Your task to perform on an android device: Go to notification settings Image 0: 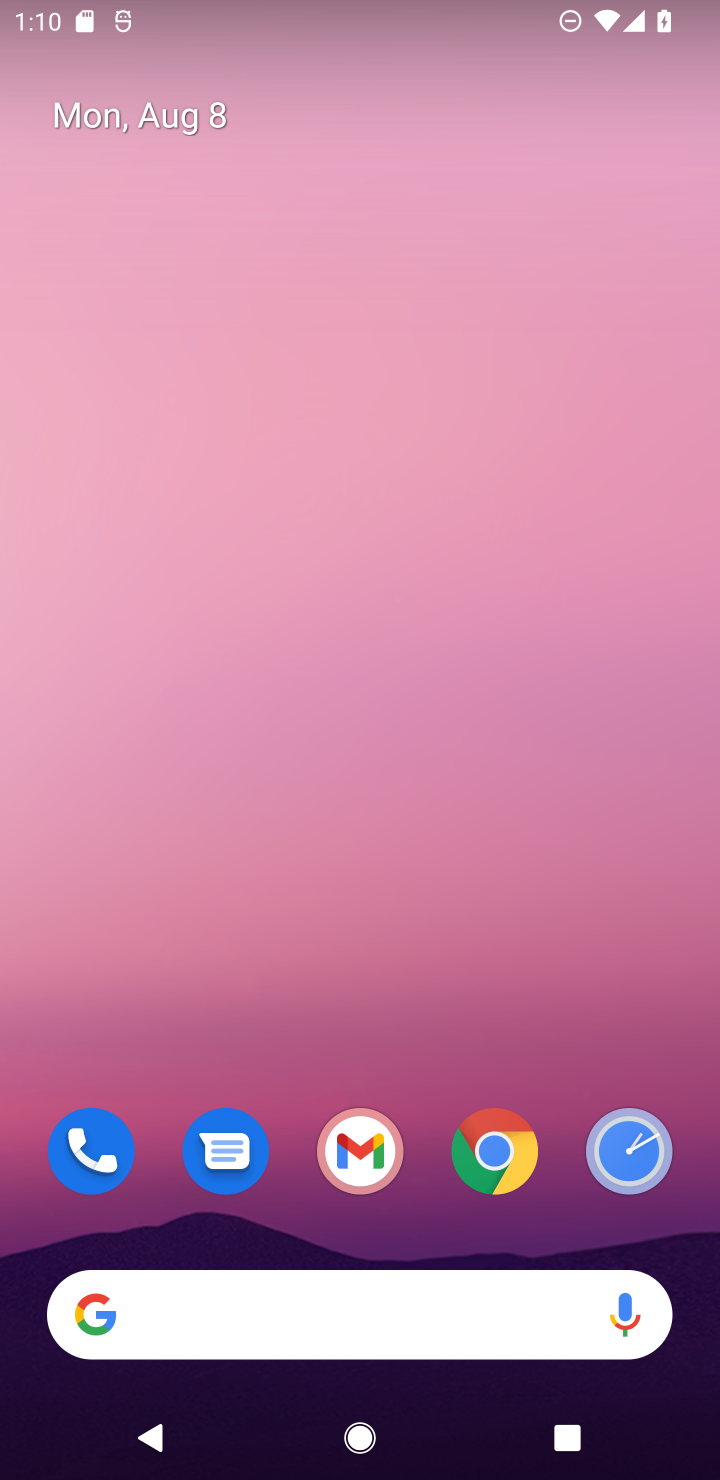
Step 0: drag from (345, 1222) to (367, 866)
Your task to perform on an android device: Go to notification settings Image 1: 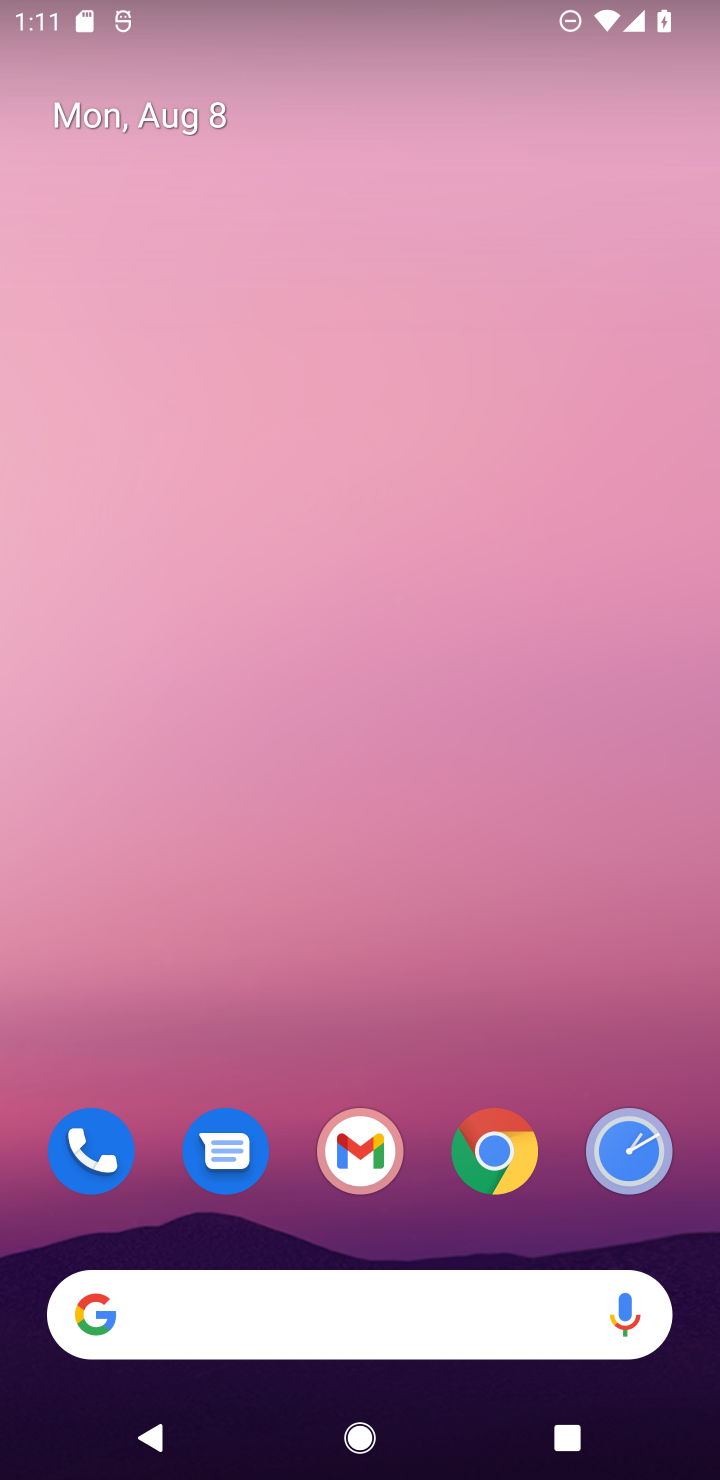
Step 1: drag from (467, 1086) to (596, 295)
Your task to perform on an android device: Go to notification settings Image 2: 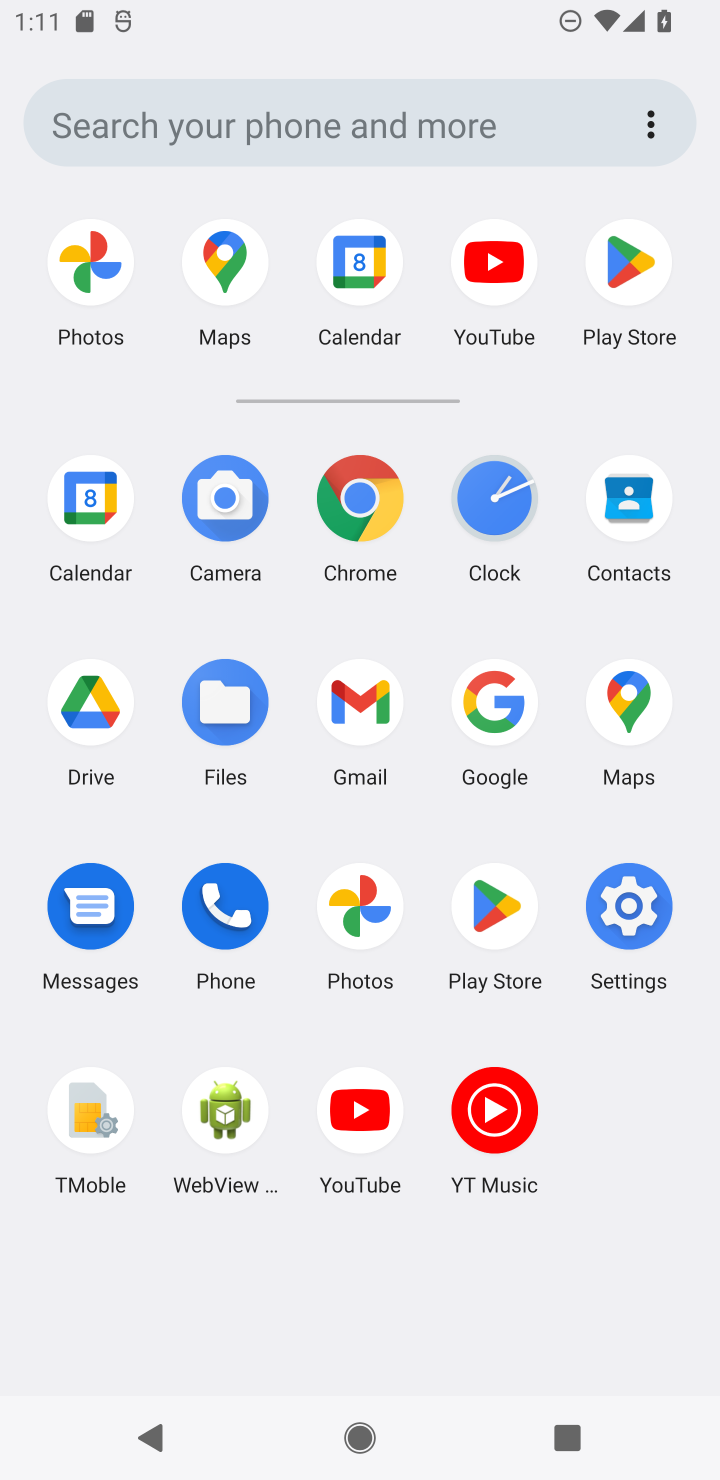
Step 2: click (621, 930)
Your task to perform on an android device: Go to notification settings Image 3: 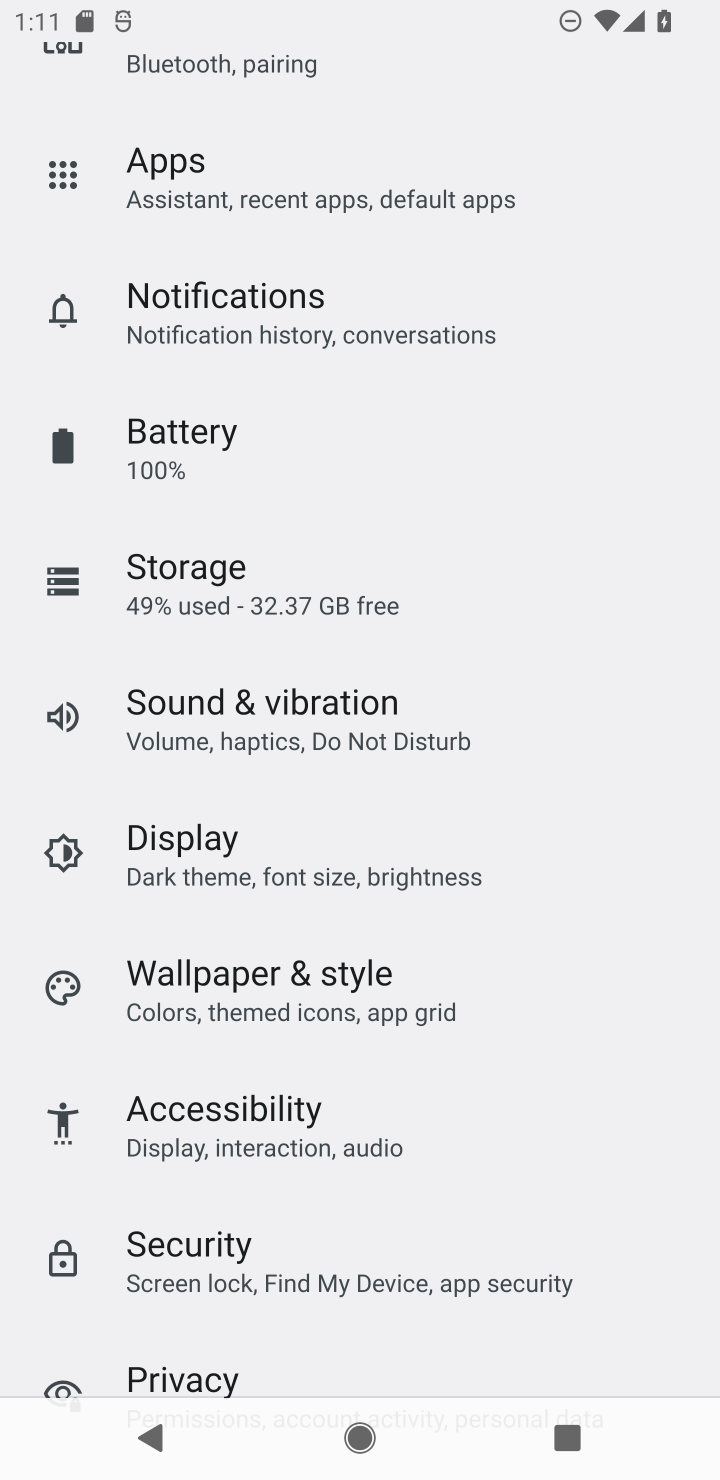
Step 3: task complete